Your task to perform on an android device: delete a single message in the gmail app Image 0: 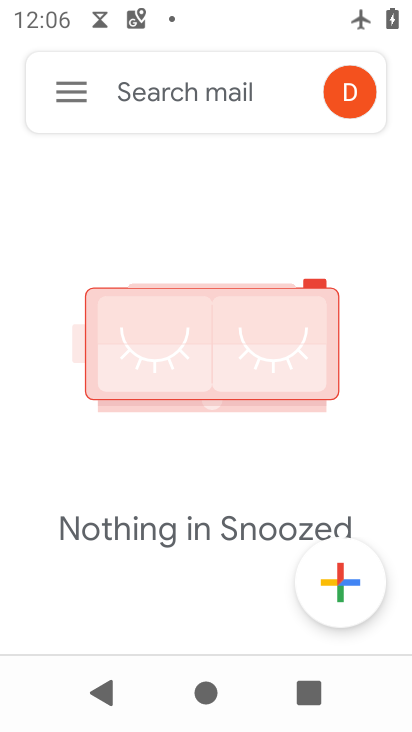
Step 0: click (75, 91)
Your task to perform on an android device: delete a single message in the gmail app Image 1: 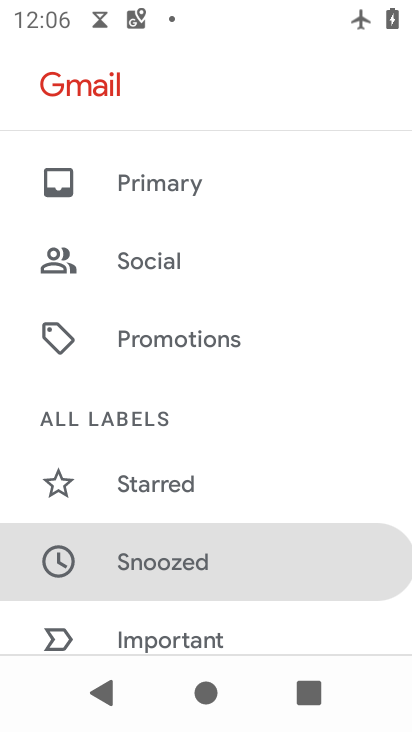
Step 1: drag from (192, 491) to (179, 114)
Your task to perform on an android device: delete a single message in the gmail app Image 2: 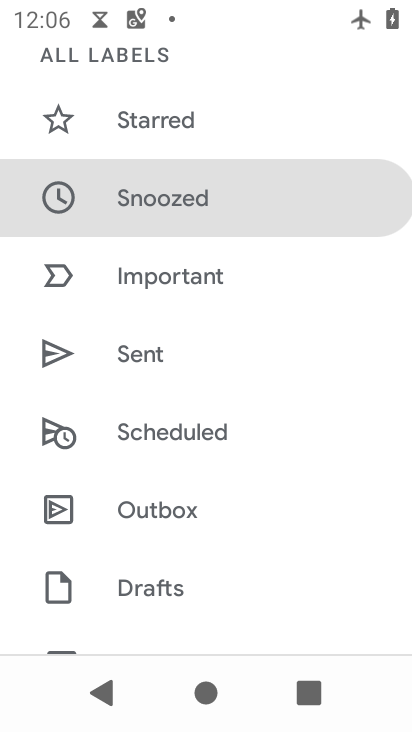
Step 2: drag from (188, 538) to (131, 117)
Your task to perform on an android device: delete a single message in the gmail app Image 3: 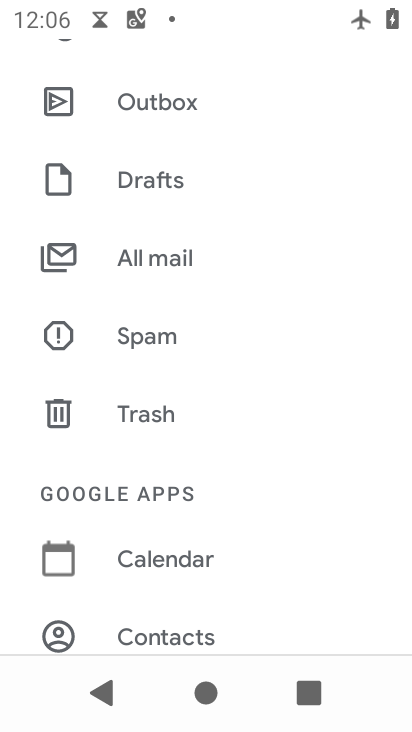
Step 3: click (195, 238)
Your task to perform on an android device: delete a single message in the gmail app Image 4: 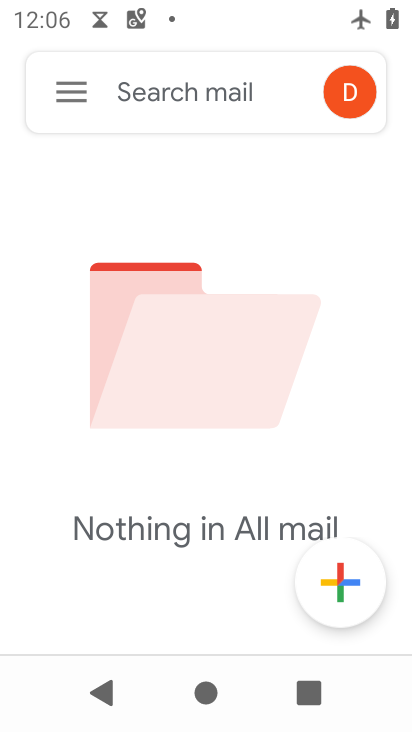
Step 4: task complete